Your task to perform on an android device: Open eBay Image 0: 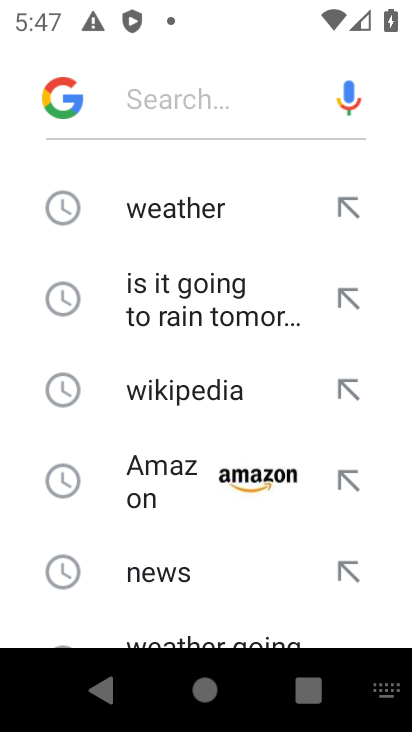
Step 0: press home button
Your task to perform on an android device: Open eBay Image 1: 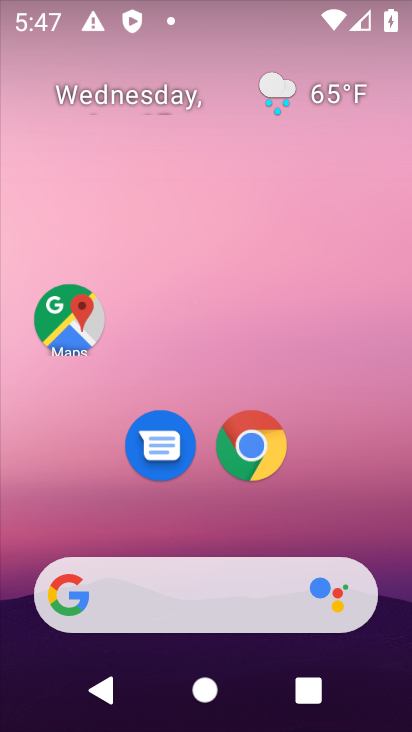
Step 1: click (265, 438)
Your task to perform on an android device: Open eBay Image 2: 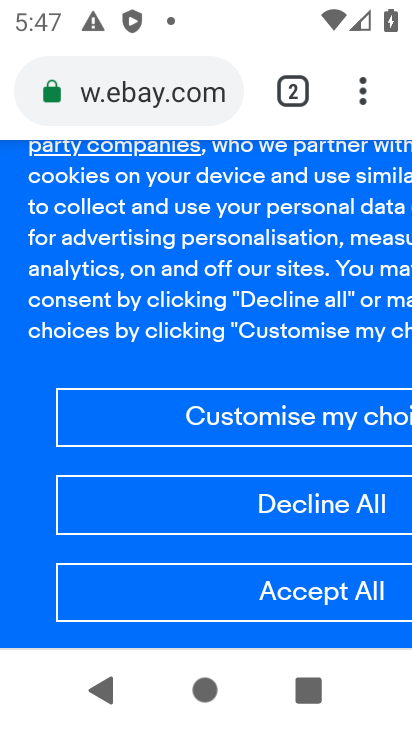
Step 2: task complete